Your task to perform on an android device: Open display settings Image 0: 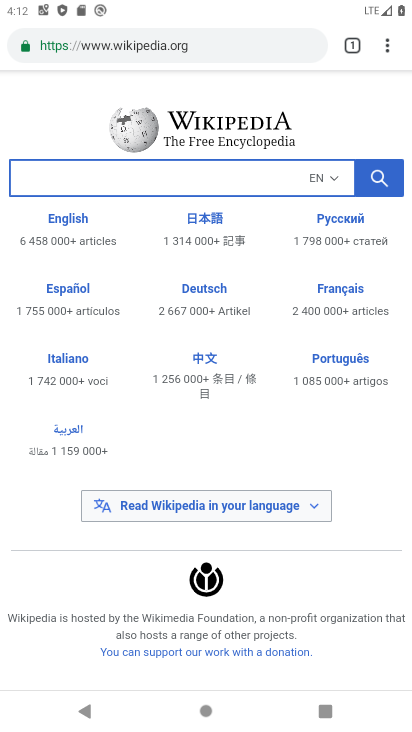
Step 0: press home button
Your task to perform on an android device: Open display settings Image 1: 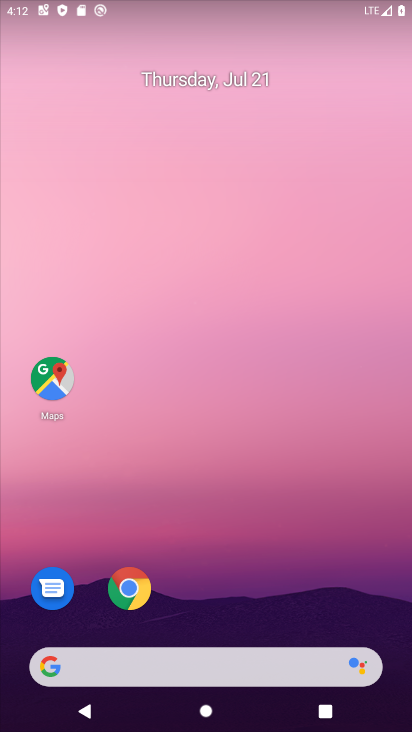
Step 1: drag from (245, 596) to (250, 141)
Your task to perform on an android device: Open display settings Image 2: 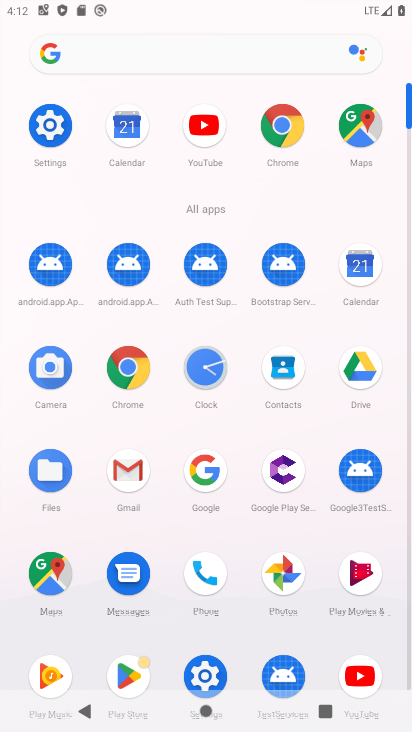
Step 2: click (194, 663)
Your task to perform on an android device: Open display settings Image 3: 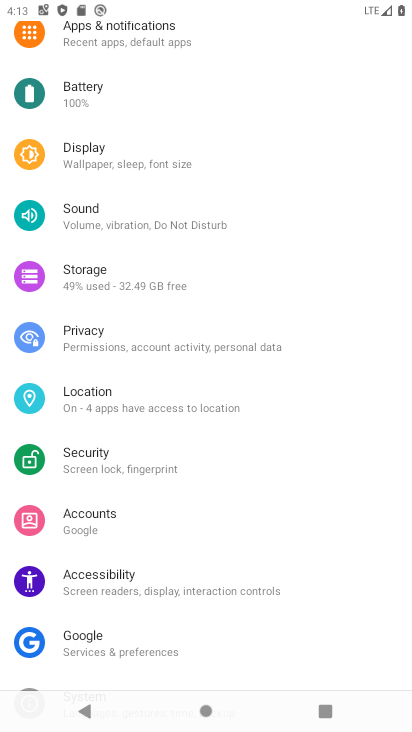
Step 3: click (70, 160)
Your task to perform on an android device: Open display settings Image 4: 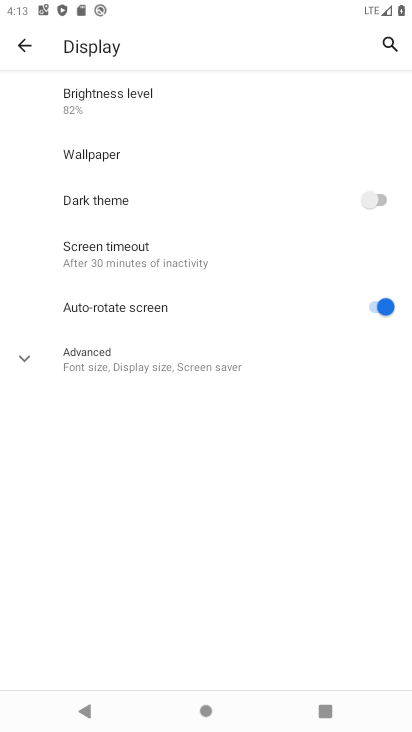
Step 4: task complete